Your task to perform on an android device: Go to accessibility settings Image 0: 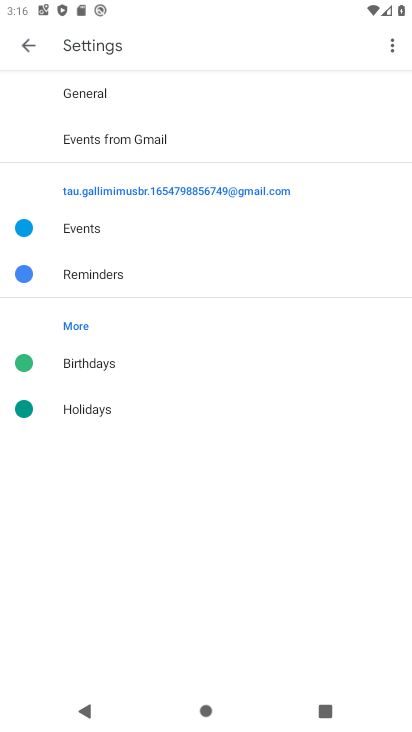
Step 0: press home button
Your task to perform on an android device: Go to accessibility settings Image 1: 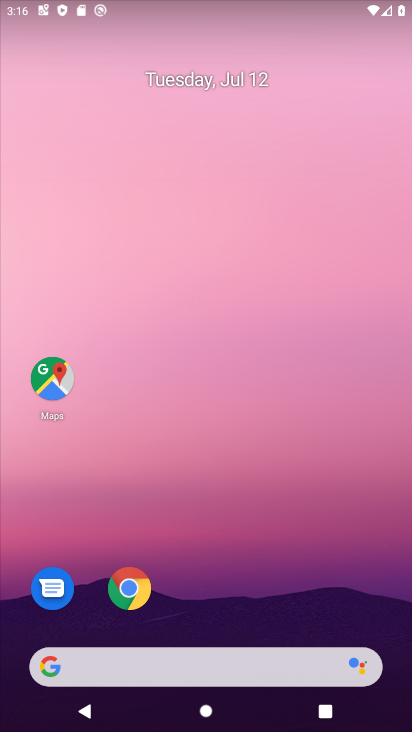
Step 1: drag from (279, 606) to (227, 40)
Your task to perform on an android device: Go to accessibility settings Image 2: 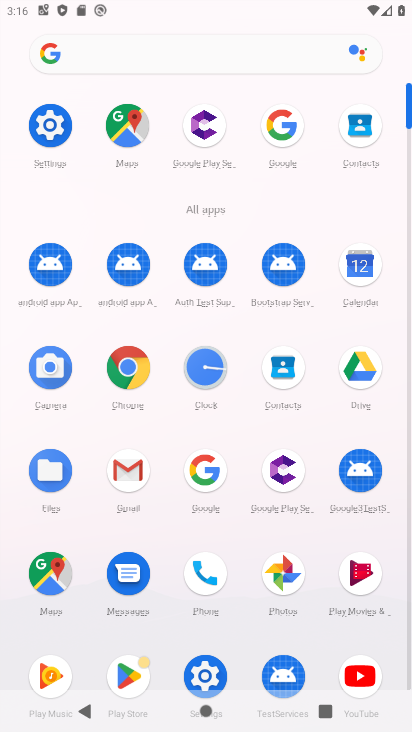
Step 2: click (49, 117)
Your task to perform on an android device: Go to accessibility settings Image 3: 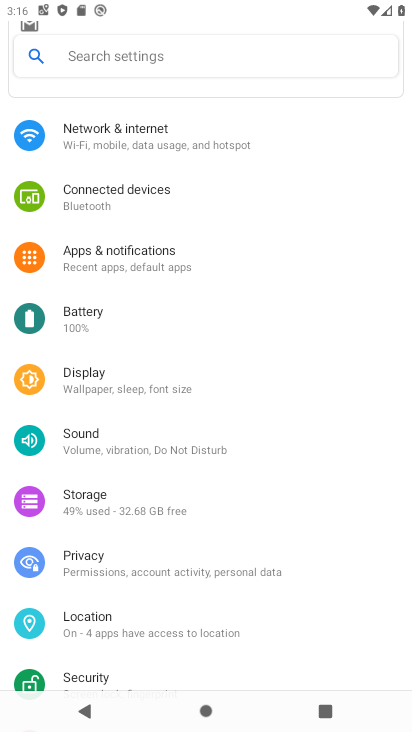
Step 3: drag from (172, 659) to (180, 390)
Your task to perform on an android device: Go to accessibility settings Image 4: 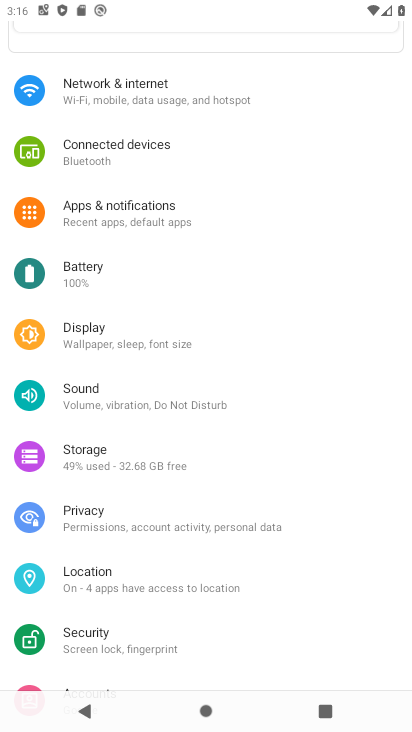
Step 4: drag from (172, 630) to (193, 209)
Your task to perform on an android device: Go to accessibility settings Image 5: 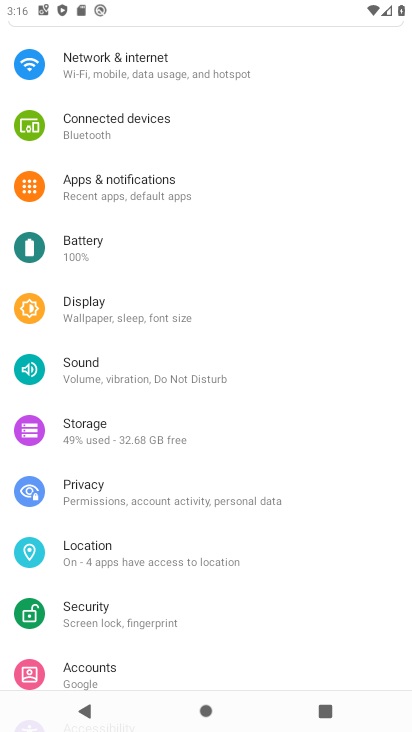
Step 5: drag from (187, 588) to (181, 373)
Your task to perform on an android device: Go to accessibility settings Image 6: 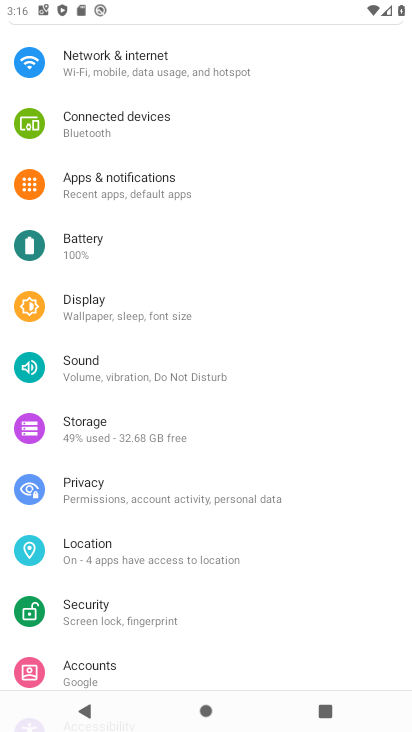
Step 6: drag from (216, 561) to (160, 0)
Your task to perform on an android device: Go to accessibility settings Image 7: 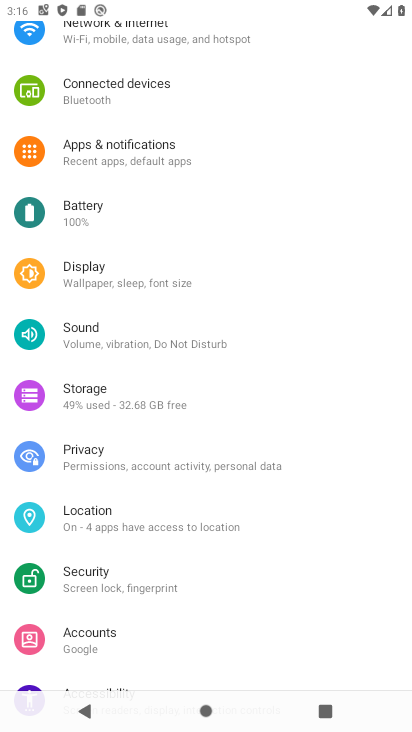
Step 7: drag from (214, 521) to (186, 281)
Your task to perform on an android device: Go to accessibility settings Image 8: 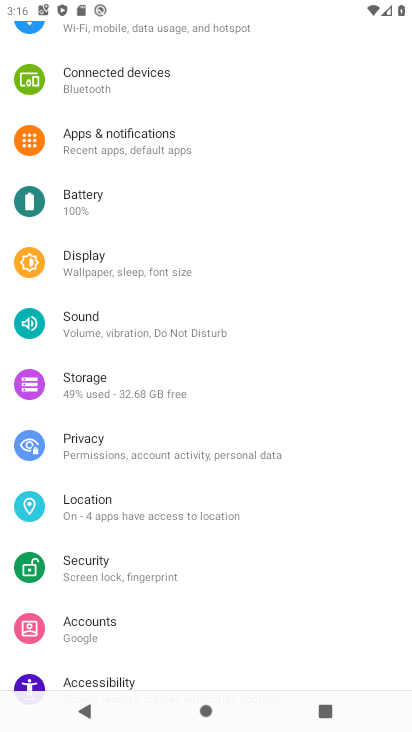
Step 8: click (118, 675)
Your task to perform on an android device: Go to accessibility settings Image 9: 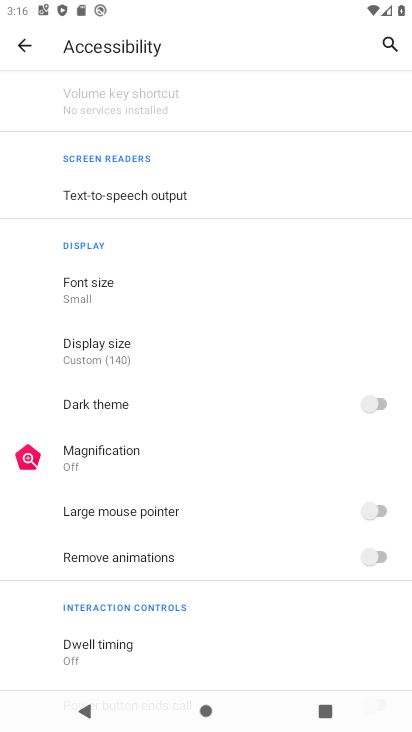
Step 9: task complete